Your task to perform on an android device: toggle data saver in the chrome app Image 0: 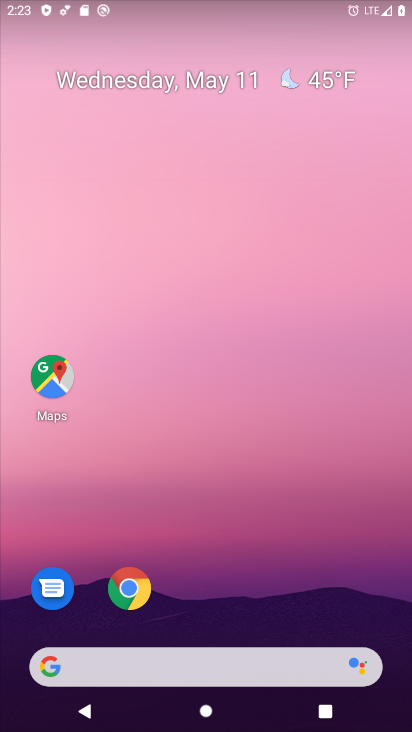
Step 0: click (138, 592)
Your task to perform on an android device: toggle data saver in the chrome app Image 1: 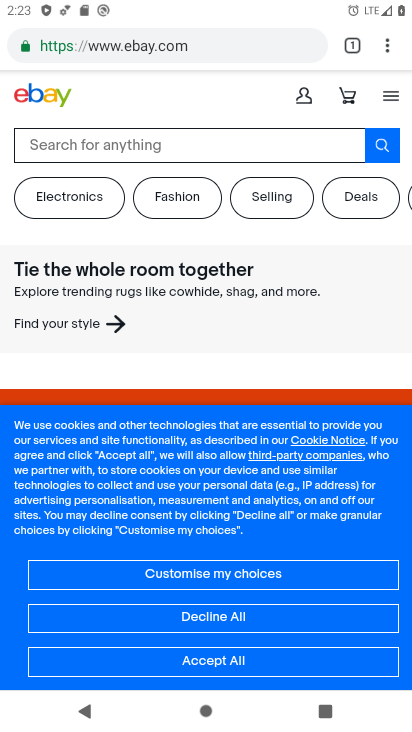
Step 1: drag from (391, 53) to (271, 532)
Your task to perform on an android device: toggle data saver in the chrome app Image 2: 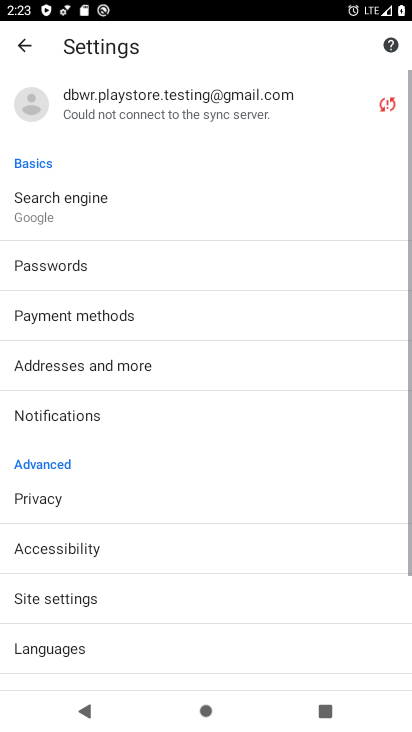
Step 2: drag from (186, 625) to (217, 361)
Your task to perform on an android device: toggle data saver in the chrome app Image 3: 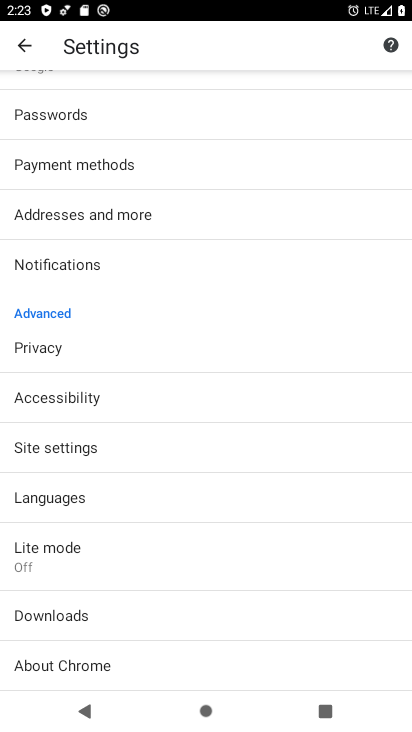
Step 3: click (66, 573)
Your task to perform on an android device: toggle data saver in the chrome app Image 4: 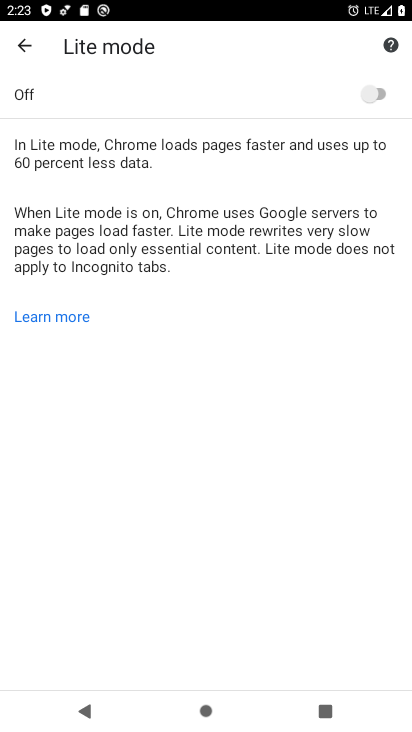
Step 4: click (382, 94)
Your task to perform on an android device: toggle data saver in the chrome app Image 5: 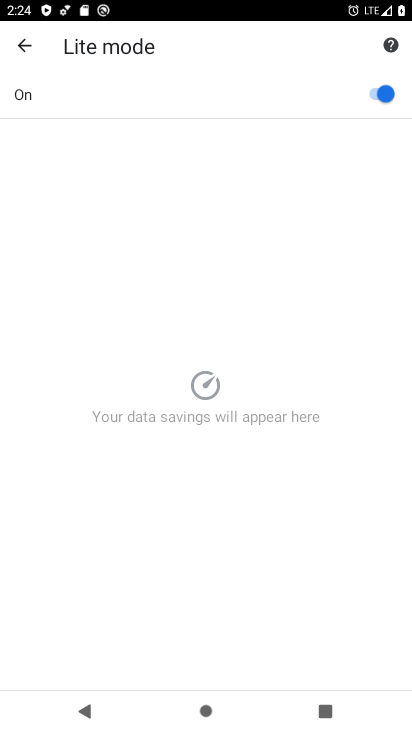
Step 5: task complete